Your task to perform on an android device: show emergency info Image 0: 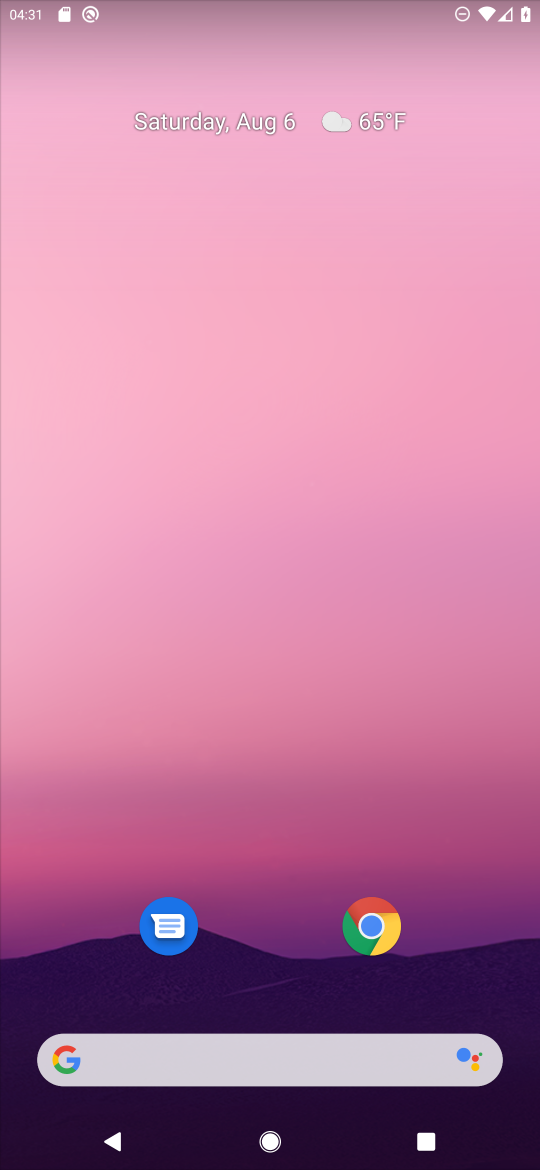
Step 0: drag from (273, 991) to (277, 302)
Your task to perform on an android device: show emergency info Image 1: 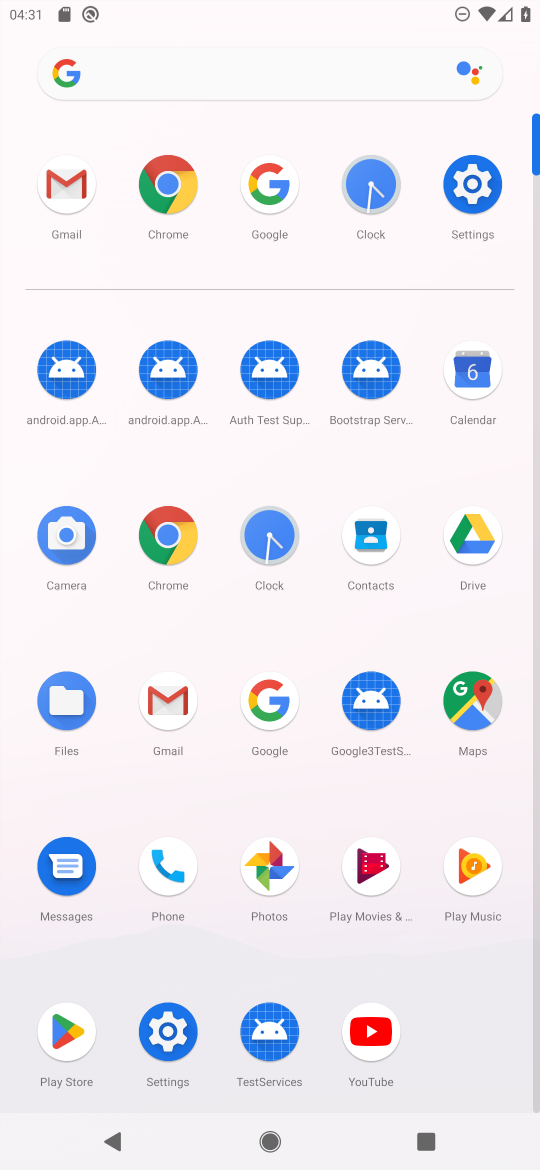
Step 1: click (457, 194)
Your task to perform on an android device: show emergency info Image 2: 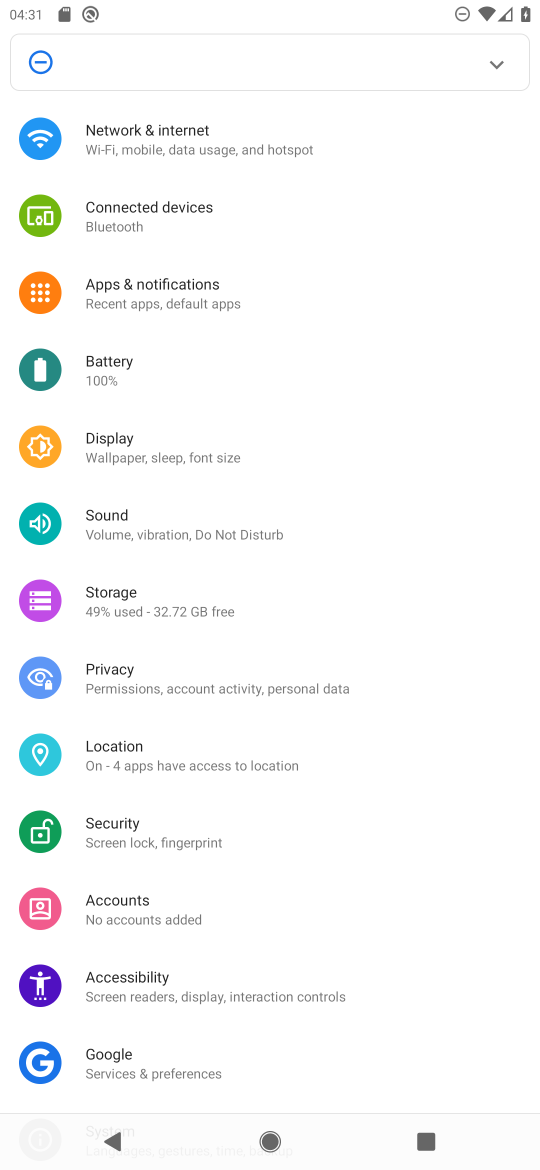
Step 2: drag from (234, 1016) to (234, 340)
Your task to perform on an android device: show emergency info Image 3: 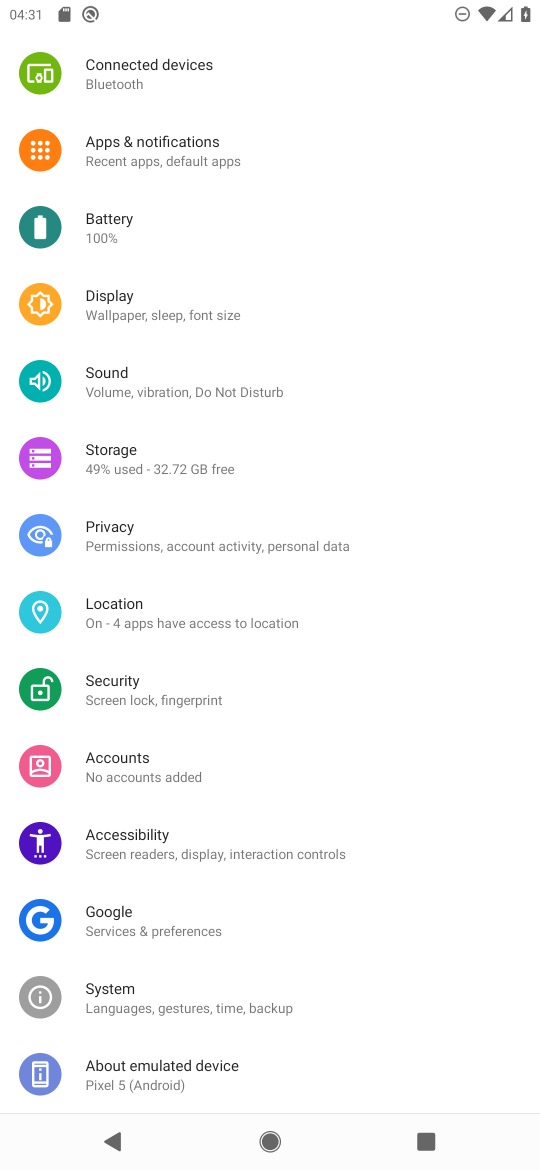
Step 3: click (211, 1053)
Your task to perform on an android device: show emergency info Image 4: 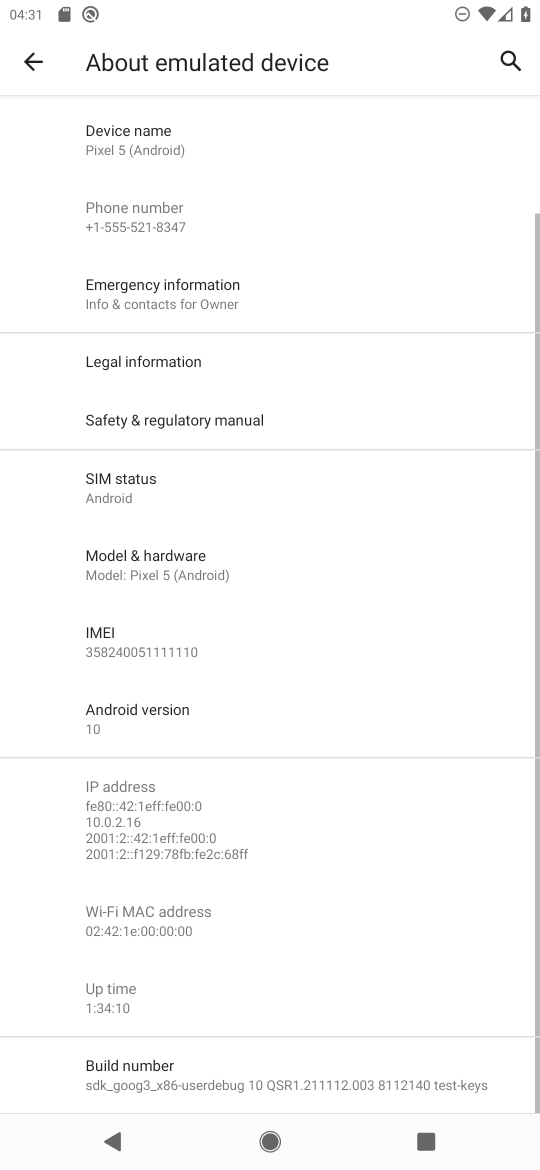
Step 4: click (188, 309)
Your task to perform on an android device: show emergency info Image 5: 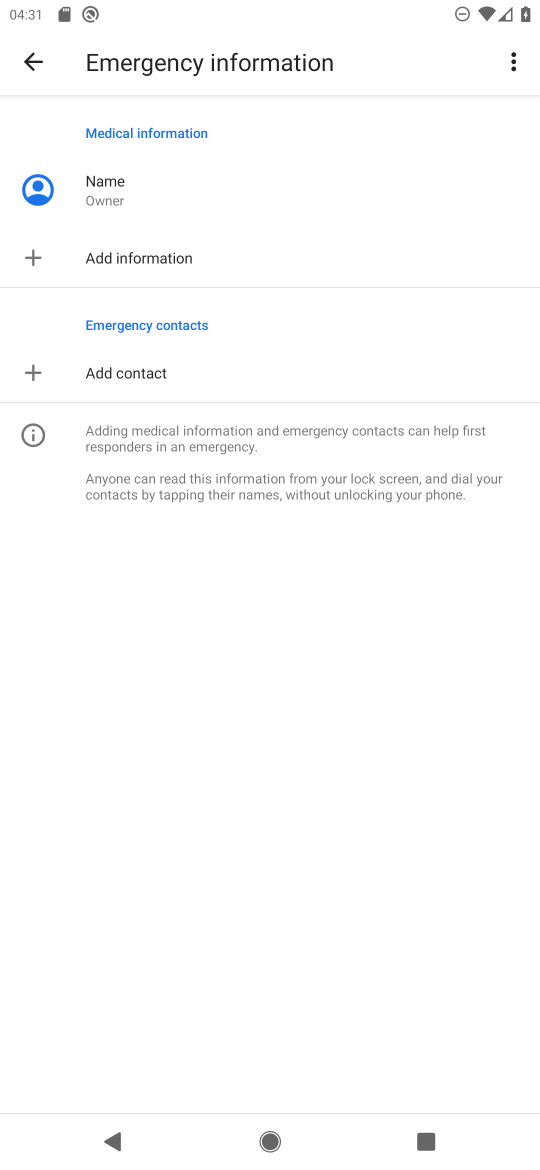
Step 5: task complete